Your task to perform on an android device: Open maps Image 0: 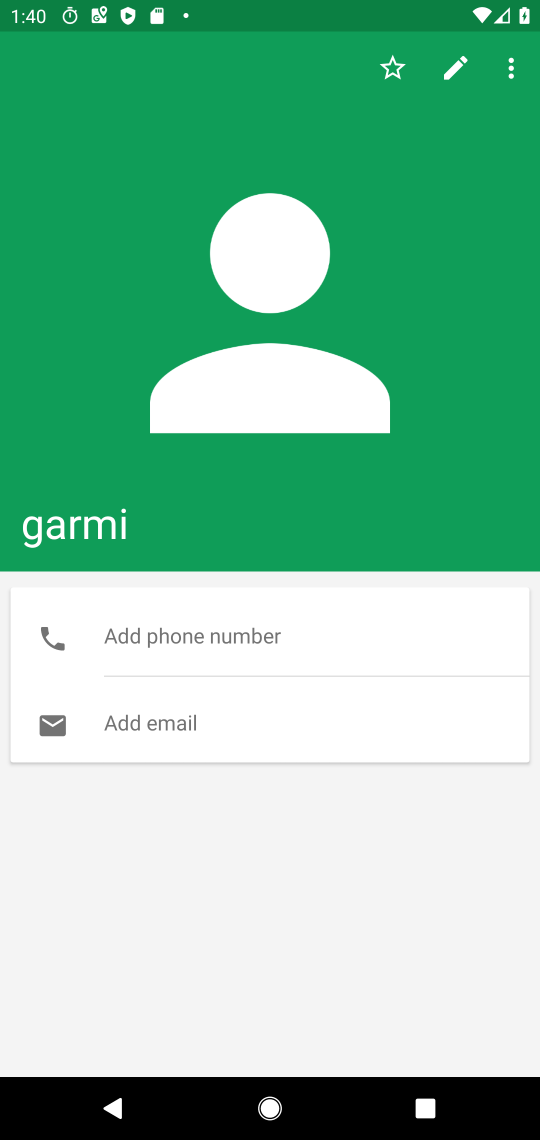
Step 0: press home button
Your task to perform on an android device: Open maps Image 1: 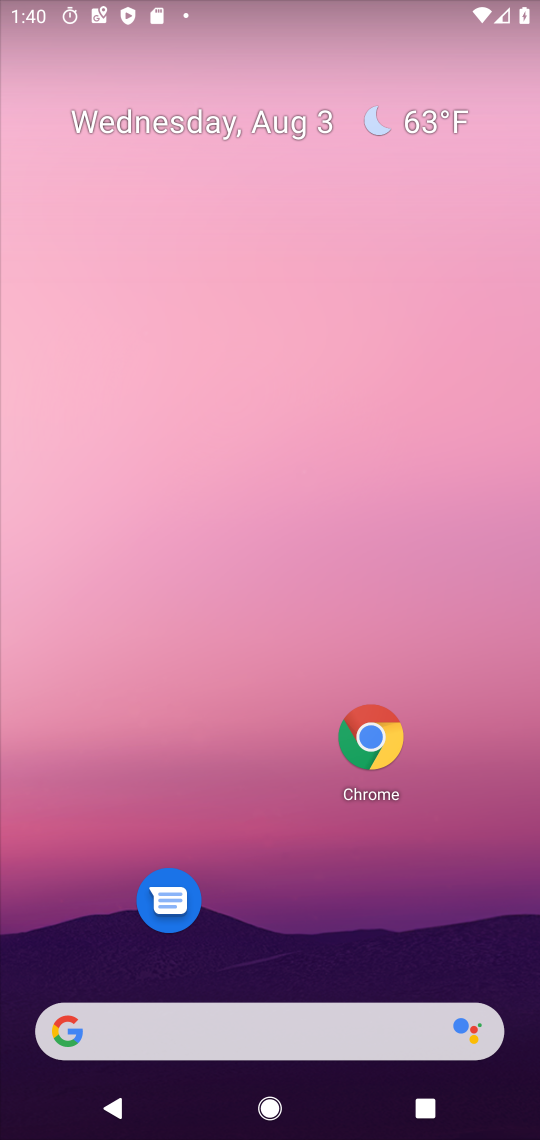
Step 1: drag from (322, 857) to (250, 105)
Your task to perform on an android device: Open maps Image 2: 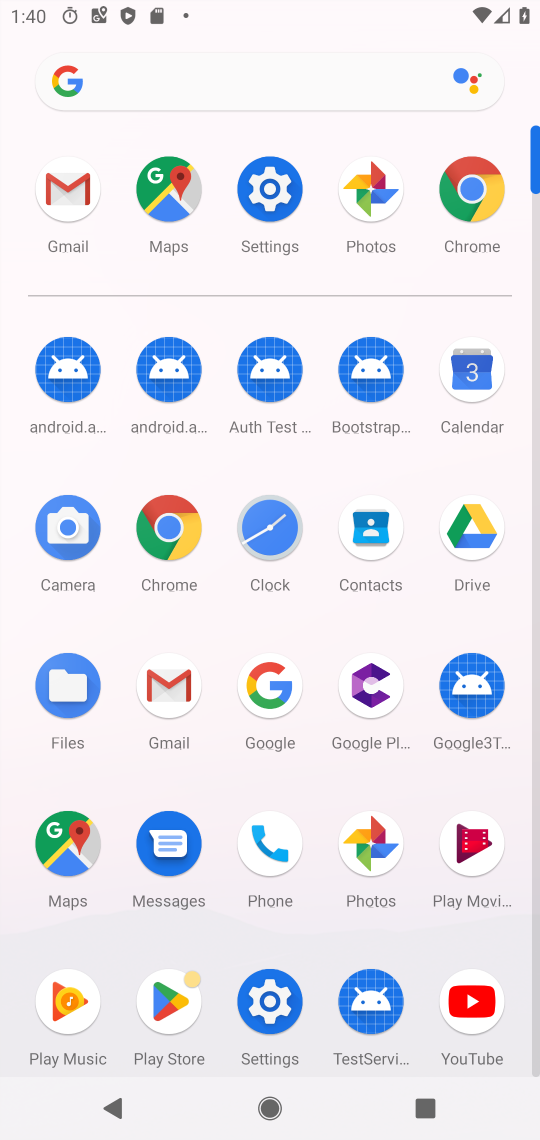
Step 2: click (65, 844)
Your task to perform on an android device: Open maps Image 3: 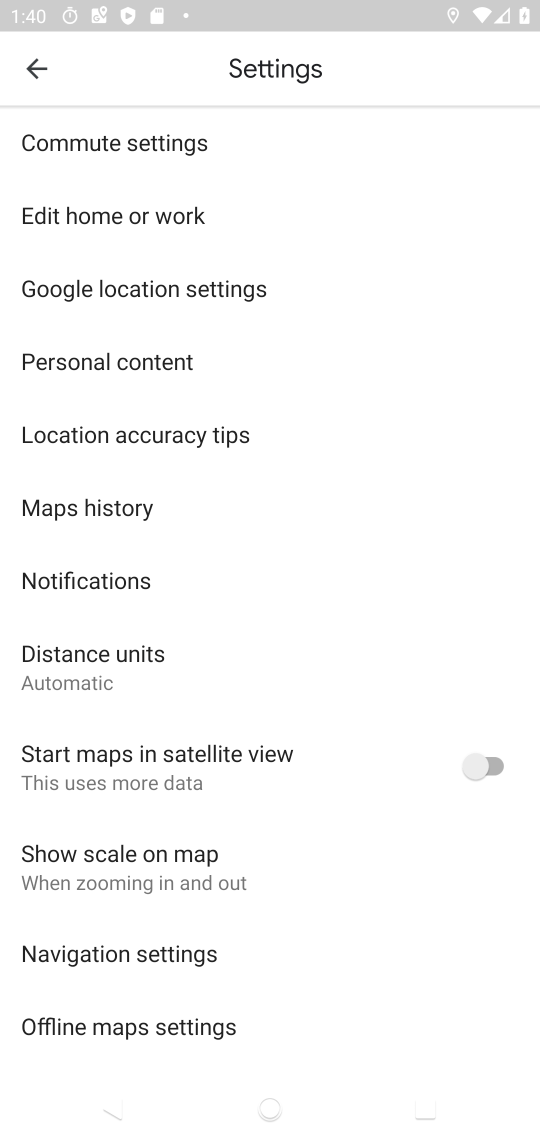
Step 3: task complete